Your task to perform on an android device: change text size in settings app Image 0: 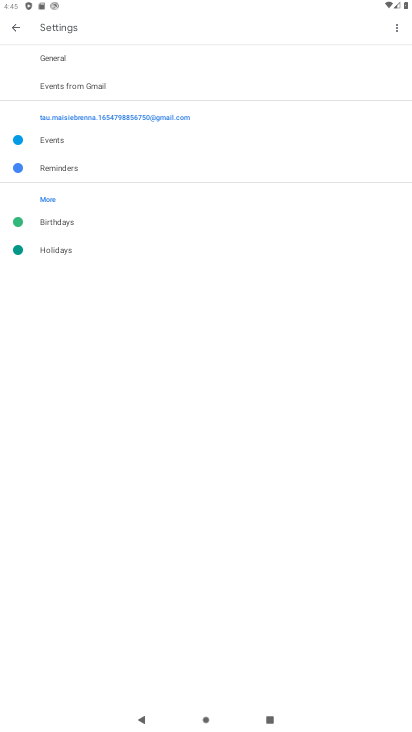
Step 0: press home button
Your task to perform on an android device: change text size in settings app Image 1: 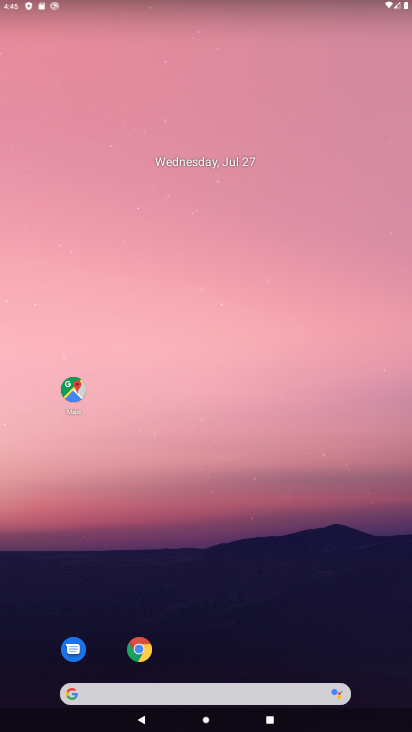
Step 1: drag from (168, 694) to (279, 2)
Your task to perform on an android device: change text size in settings app Image 2: 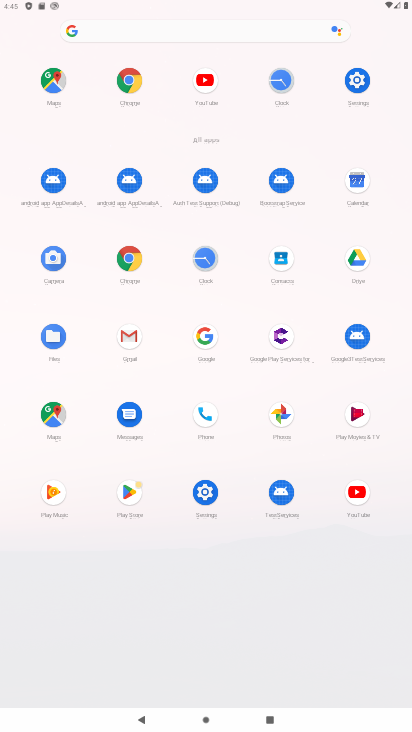
Step 2: click (356, 80)
Your task to perform on an android device: change text size in settings app Image 3: 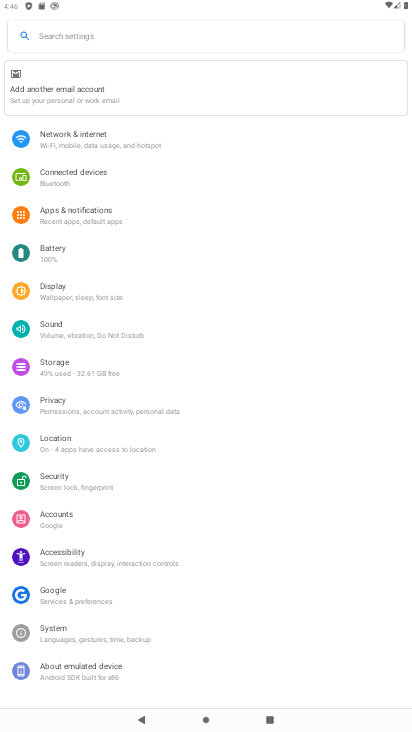
Step 3: click (74, 561)
Your task to perform on an android device: change text size in settings app Image 4: 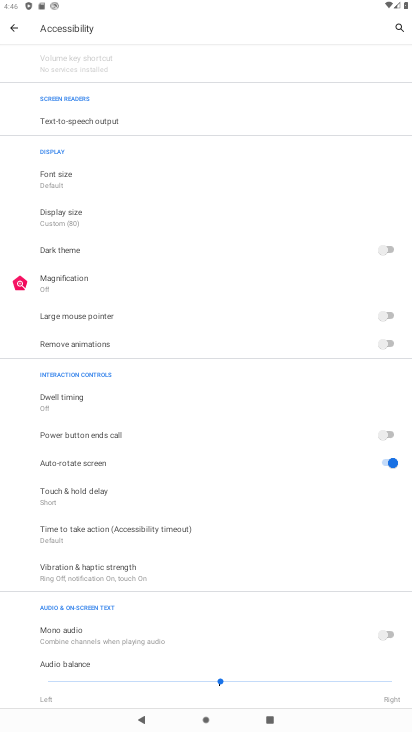
Step 4: click (56, 180)
Your task to perform on an android device: change text size in settings app Image 5: 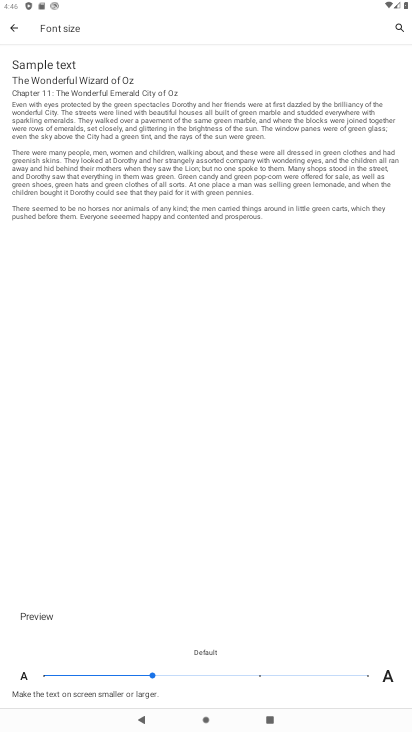
Step 5: click (367, 674)
Your task to perform on an android device: change text size in settings app Image 6: 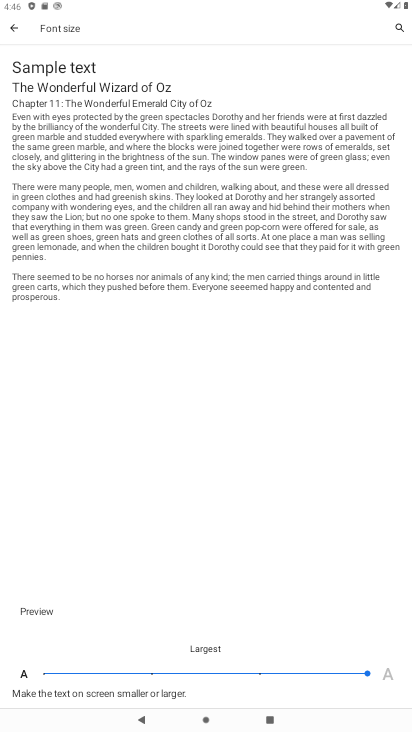
Step 6: task complete